Your task to perform on an android device: check the backup settings in the google photos Image 0: 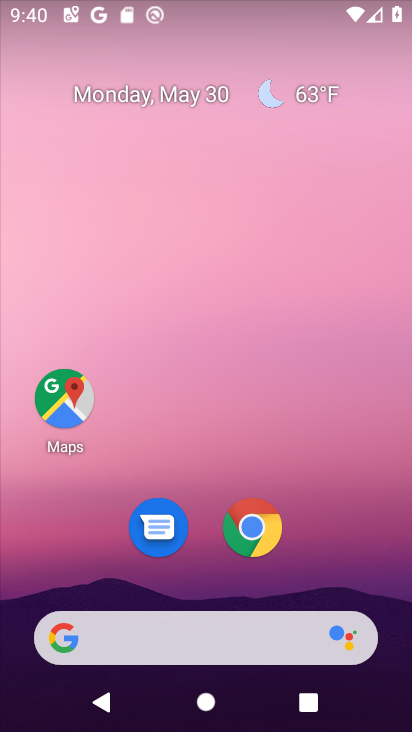
Step 0: drag from (304, 517) to (289, 127)
Your task to perform on an android device: check the backup settings in the google photos Image 1: 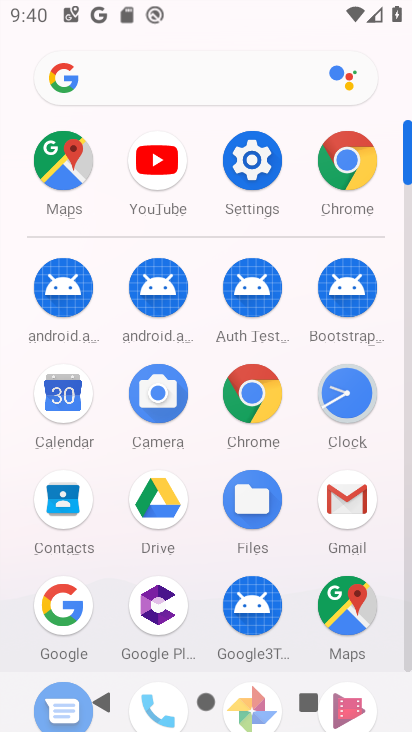
Step 1: drag from (227, 588) to (216, 343)
Your task to perform on an android device: check the backup settings in the google photos Image 2: 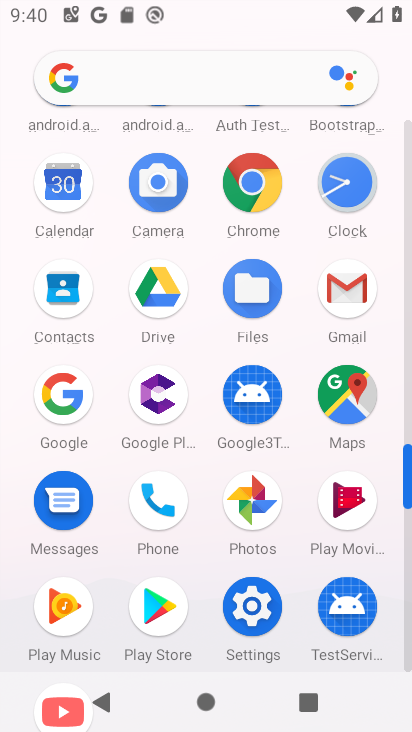
Step 2: click (254, 496)
Your task to perform on an android device: check the backup settings in the google photos Image 3: 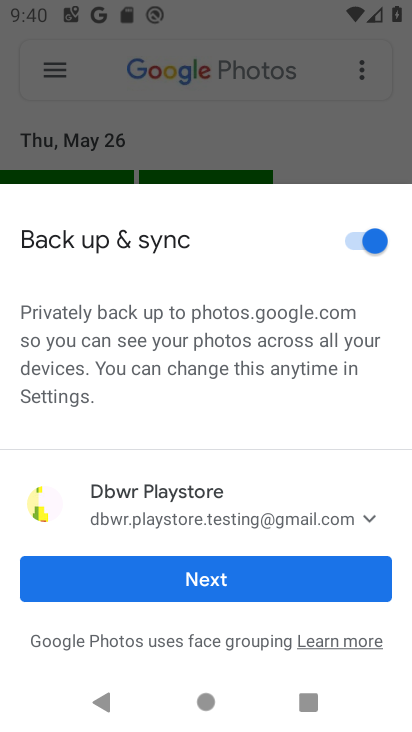
Step 3: click (211, 581)
Your task to perform on an android device: check the backup settings in the google photos Image 4: 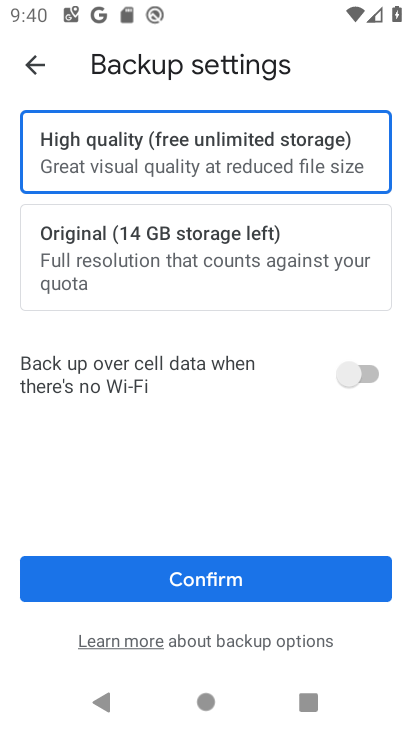
Step 4: press back button
Your task to perform on an android device: check the backup settings in the google photos Image 5: 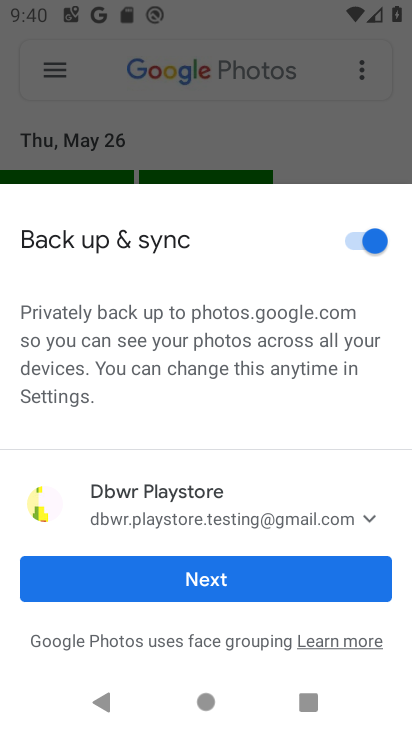
Step 5: click (59, 63)
Your task to perform on an android device: check the backup settings in the google photos Image 6: 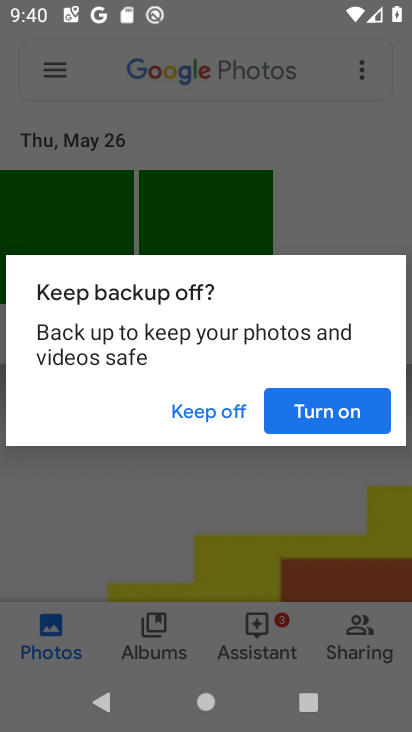
Step 6: click (59, 63)
Your task to perform on an android device: check the backup settings in the google photos Image 7: 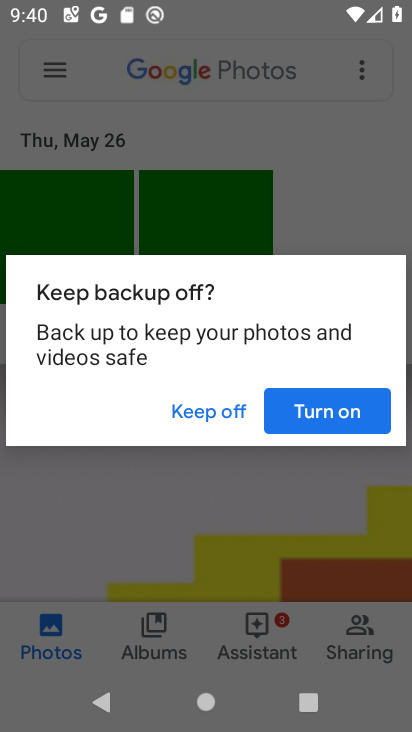
Step 7: click (204, 402)
Your task to perform on an android device: check the backup settings in the google photos Image 8: 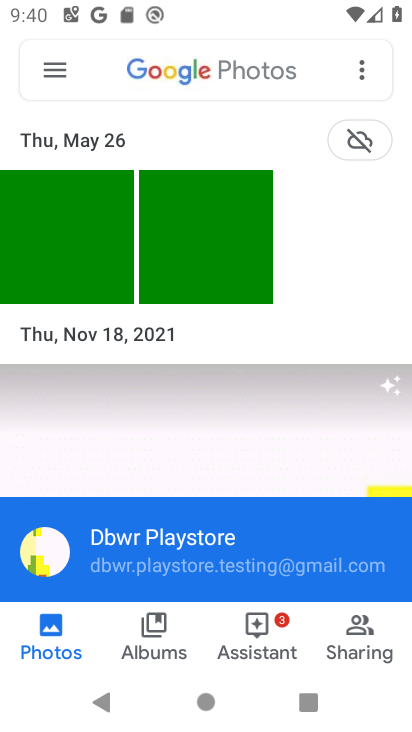
Step 8: click (49, 59)
Your task to perform on an android device: check the backup settings in the google photos Image 9: 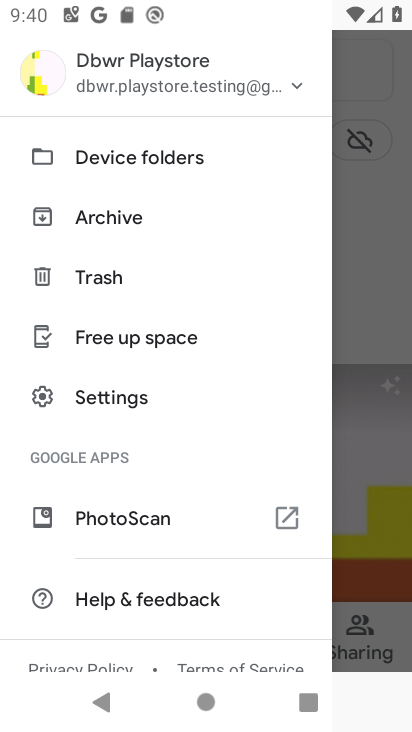
Step 9: click (140, 395)
Your task to perform on an android device: check the backup settings in the google photos Image 10: 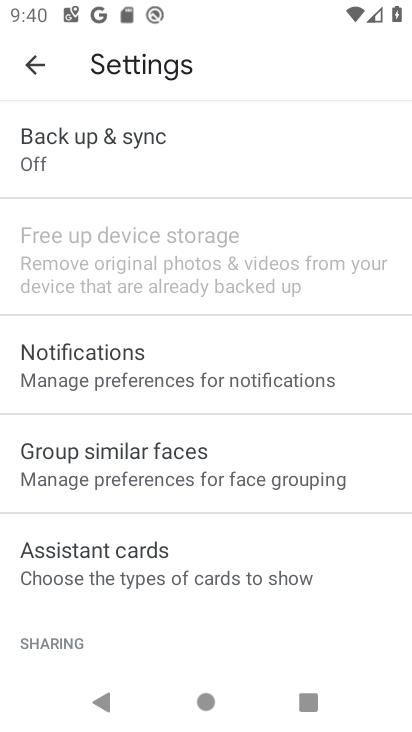
Step 10: click (149, 157)
Your task to perform on an android device: check the backup settings in the google photos Image 11: 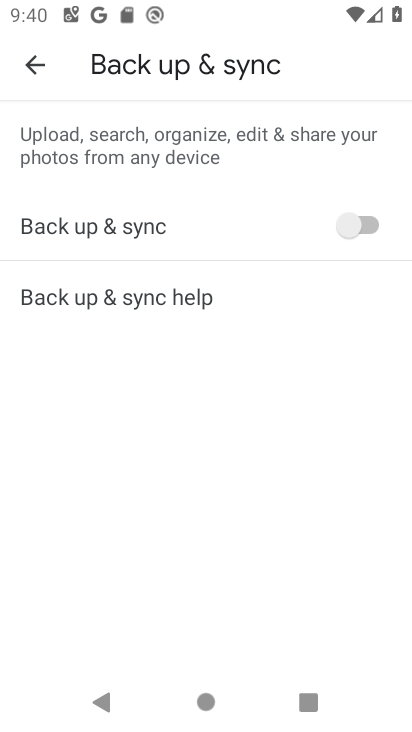
Step 11: click (360, 225)
Your task to perform on an android device: check the backup settings in the google photos Image 12: 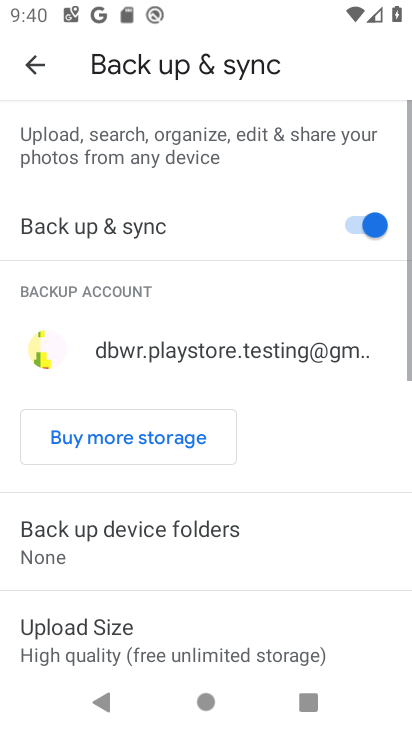
Step 12: task complete